Your task to perform on an android device: Add panasonic triple a to the cart on target, then select checkout. Image 0: 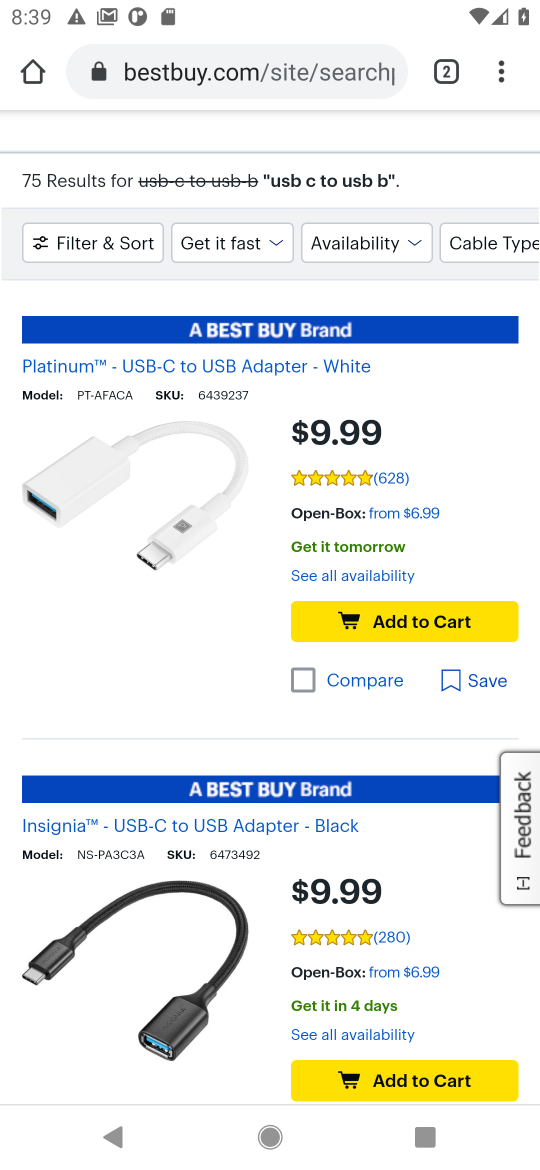
Step 0: click (186, 76)
Your task to perform on an android device: Add panasonic triple a to the cart on target, then select checkout. Image 1: 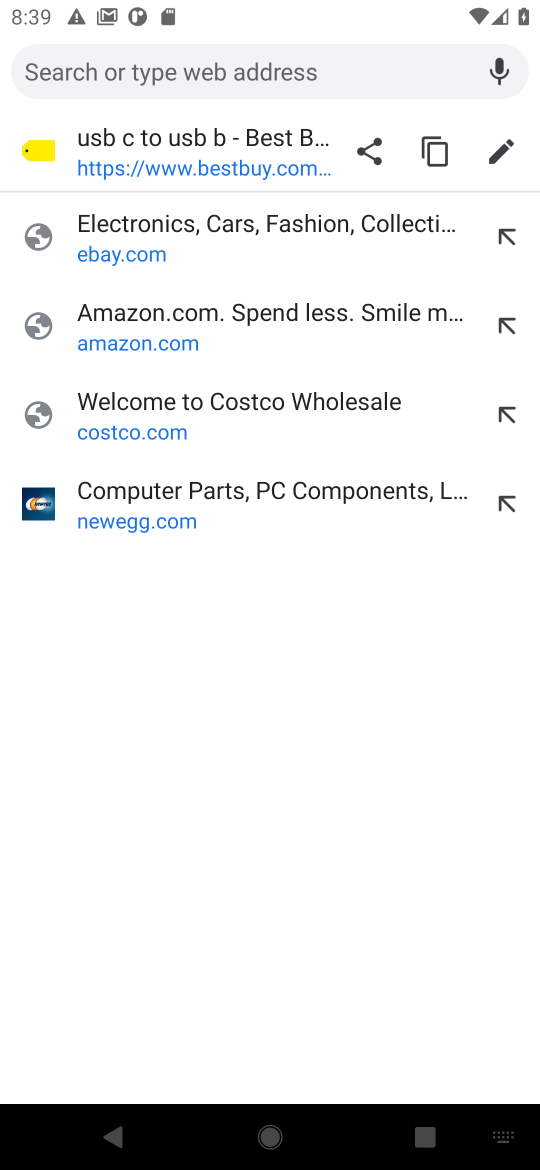
Step 1: type "target.com"
Your task to perform on an android device: Add panasonic triple a to the cart on target, then select checkout. Image 2: 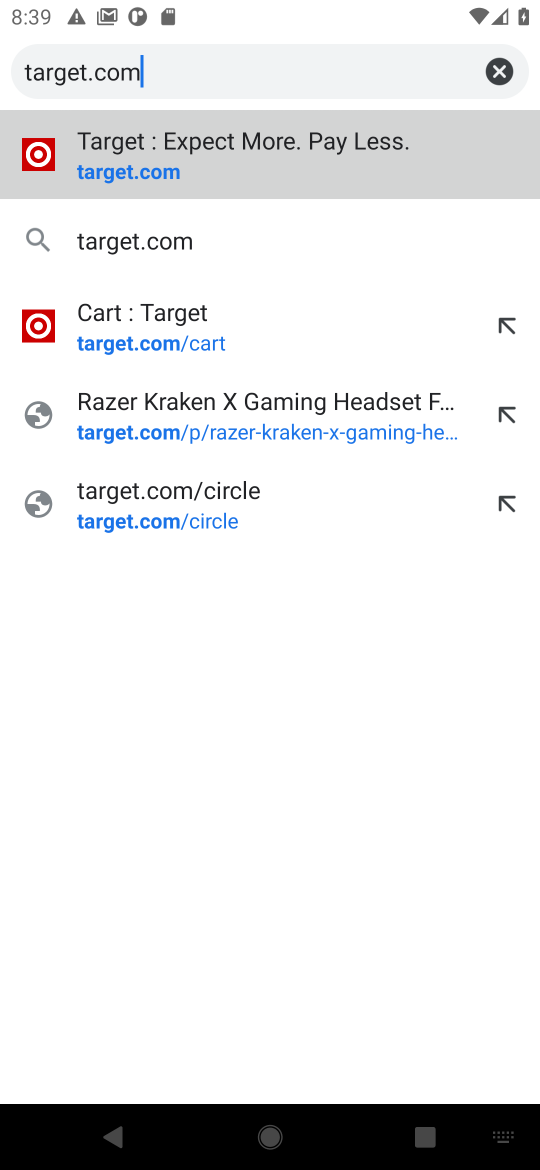
Step 2: click (114, 170)
Your task to perform on an android device: Add panasonic triple a to the cart on target, then select checkout. Image 3: 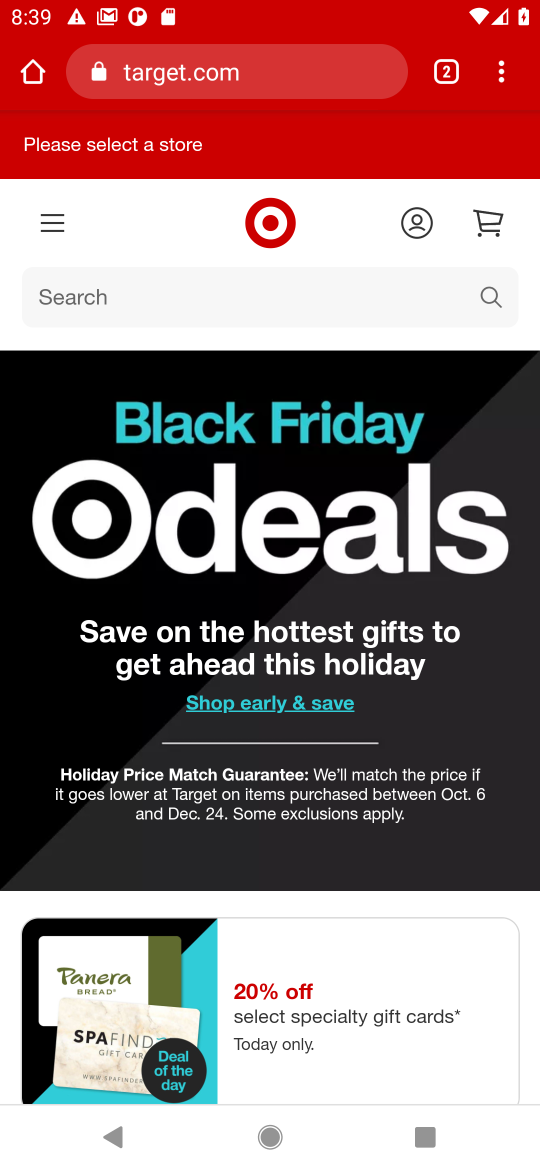
Step 3: click (490, 293)
Your task to perform on an android device: Add panasonic triple a to the cart on target, then select checkout. Image 4: 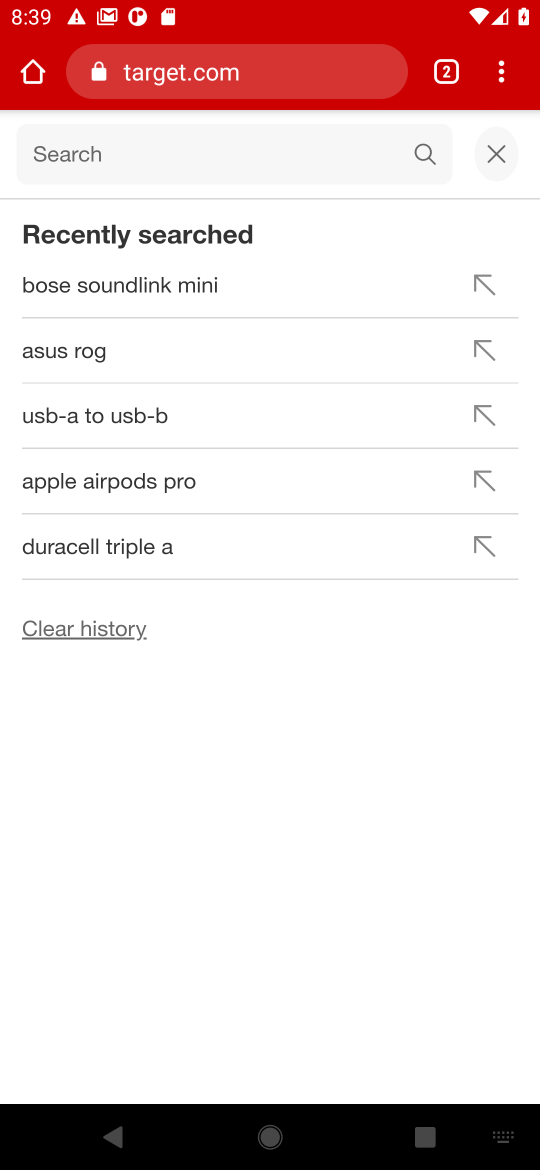
Step 4: type "panasonic triple a"
Your task to perform on an android device: Add panasonic triple a to the cart on target, then select checkout. Image 5: 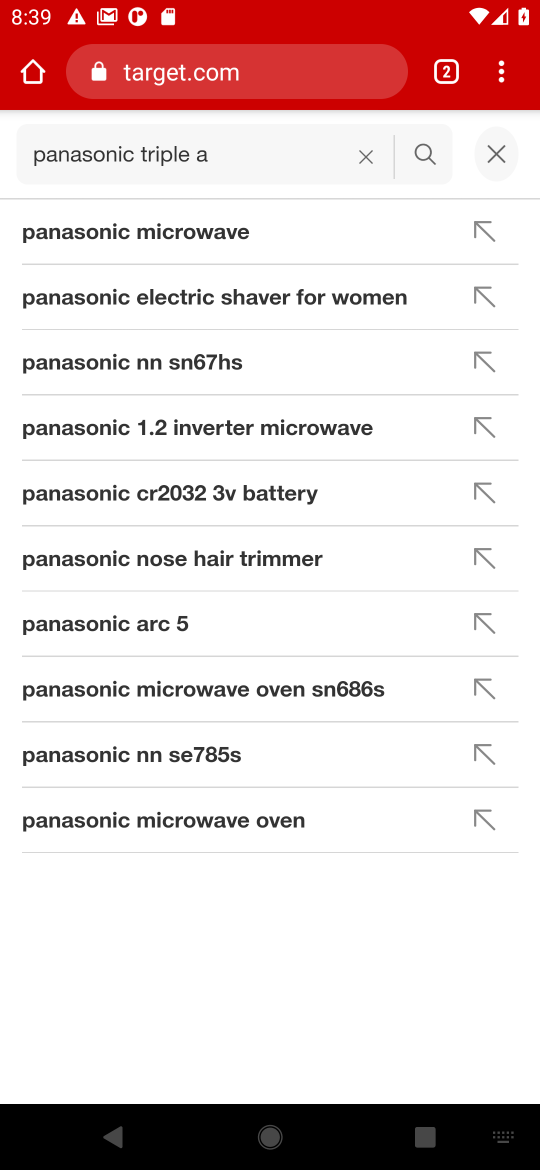
Step 5: click (411, 163)
Your task to perform on an android device: Add panasonic triple a to the cart on target, then select checkout. Image 6: 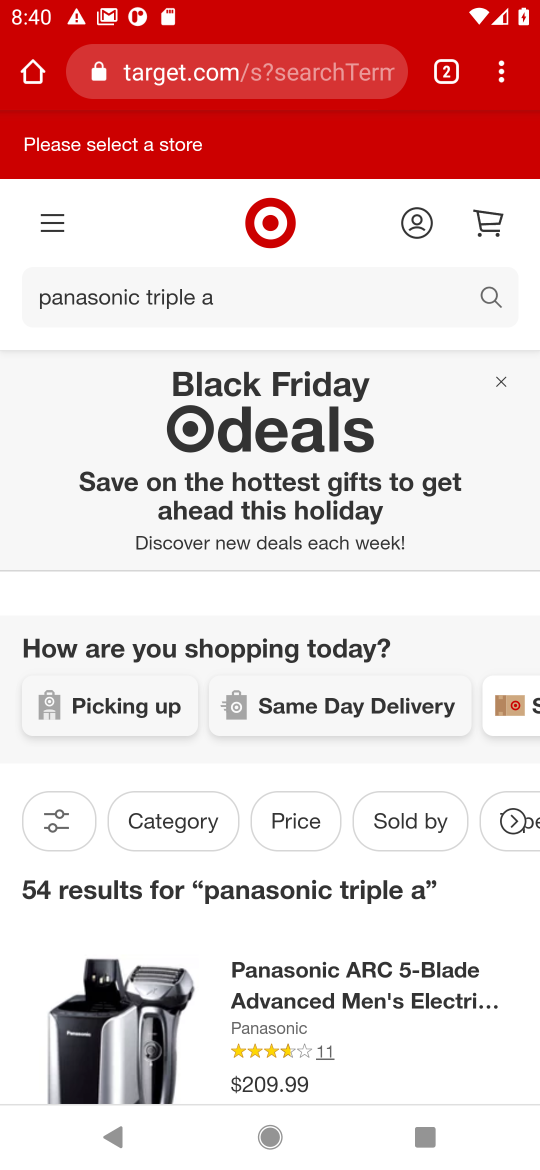
Step 6: task complete